Your task to perform on an android device: add a label to a message in the gmail app Image 0: 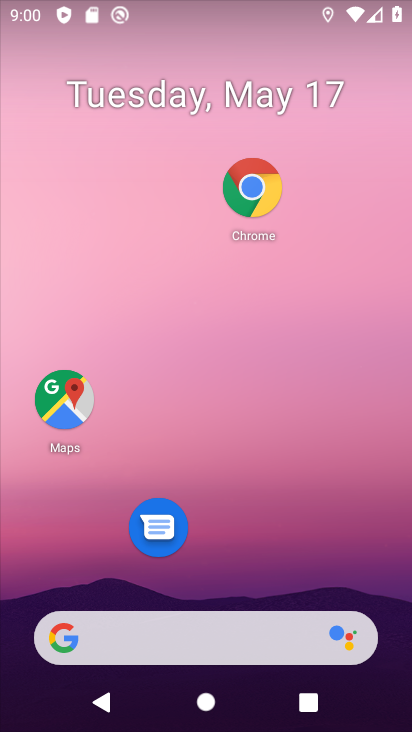
Step 0: drag from (285, 562) to (309, 207)
Your task to perform on an android device: add a label to a message in the gmail app Image 1: 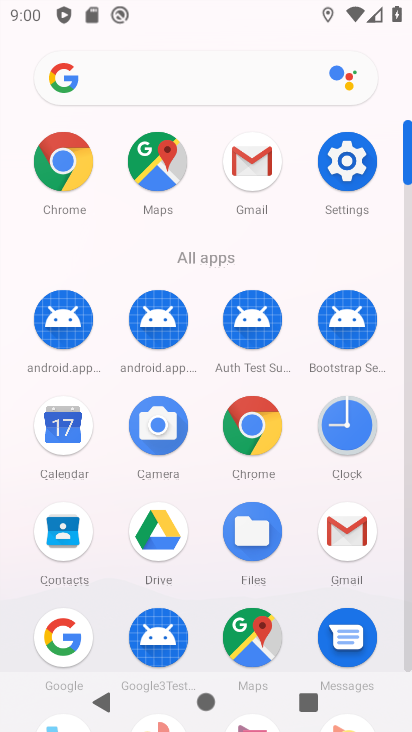
Step 1: click (349, 565)
Your task to perform on an android device: add a label to a message in the gmail app Image 2: 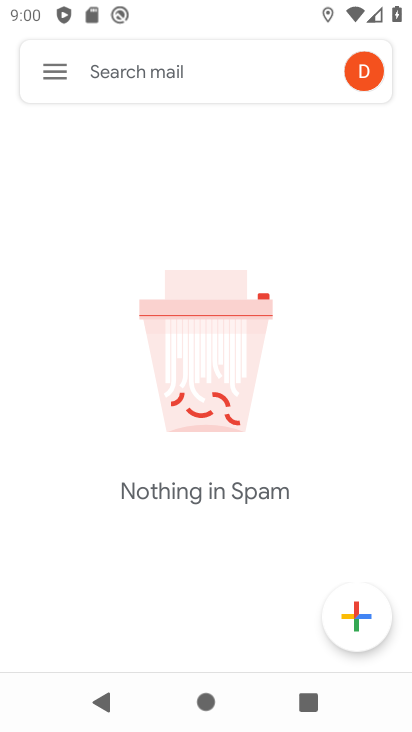
Step 2: click (63, 85)
Your task to perform on an android device: add a label to a message in the gmail app Image 3: 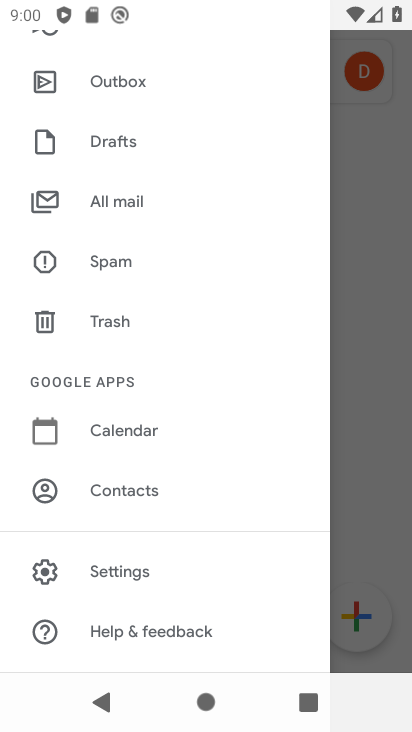
Step 3: task complete